Your task to perform on an android device: Go to network settings Image 0: 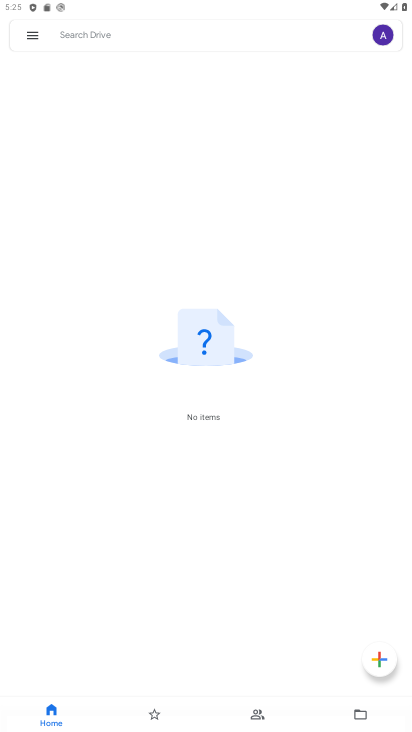
Step 0: press home button
Your task to perform on an android device: Go to network settings Image 1: 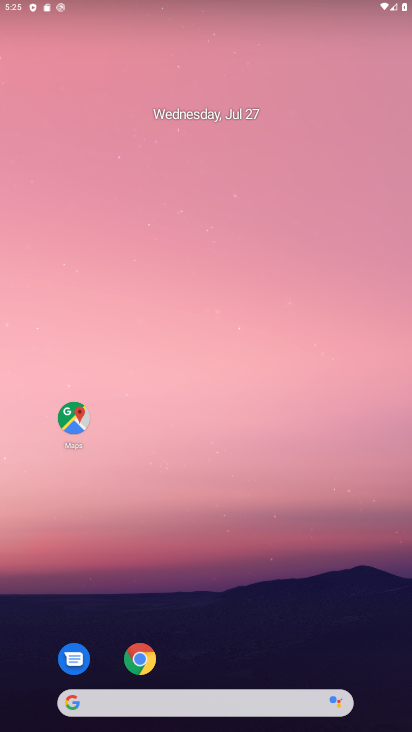
Step 1: drag from (294, 629) to (295, 106)
Your task to perform on an android device: Go to network settings Image 2: 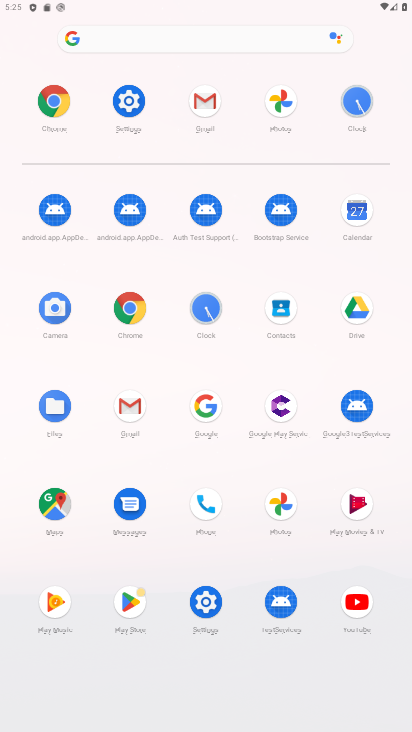
Step 2: click (206, 590)
Your task to perform on an android device: Go to network settings Image 3: 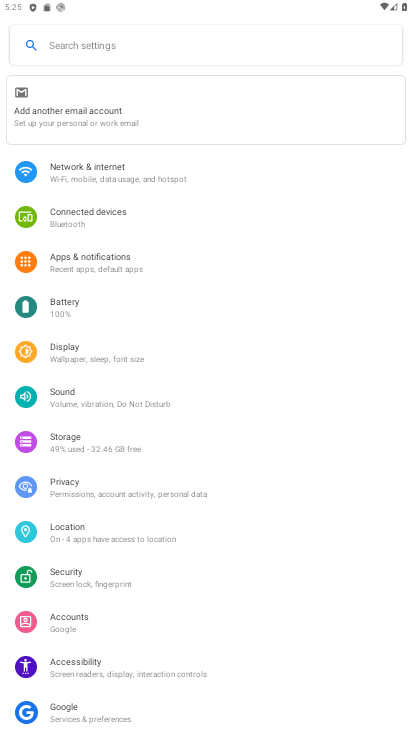
Step 3: click (97, 156)
Your task to perform on an android device: Go to network settings Image 4: 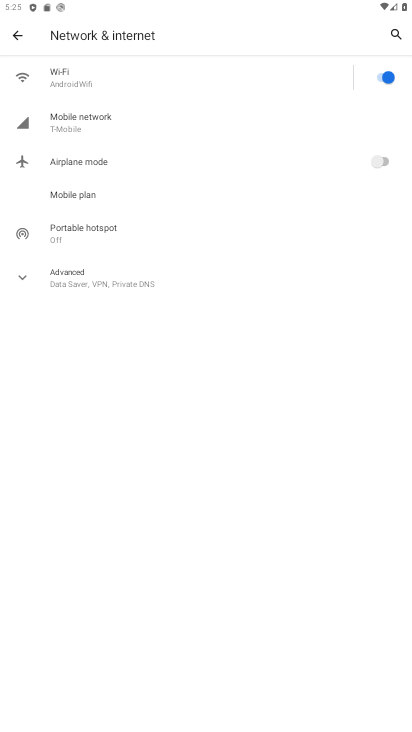
Step 4: task complete